Your task to perform on an android device: Open the calendar app, open the side menu, and click the "Day" option Image 0: 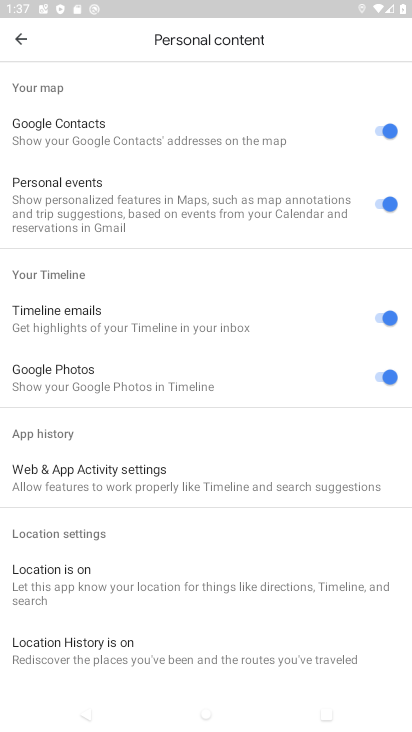
Step 0: press home button
Your task to perform on an android device: Open the calendar app, open the side menu, and click the "Day" option Image 1: 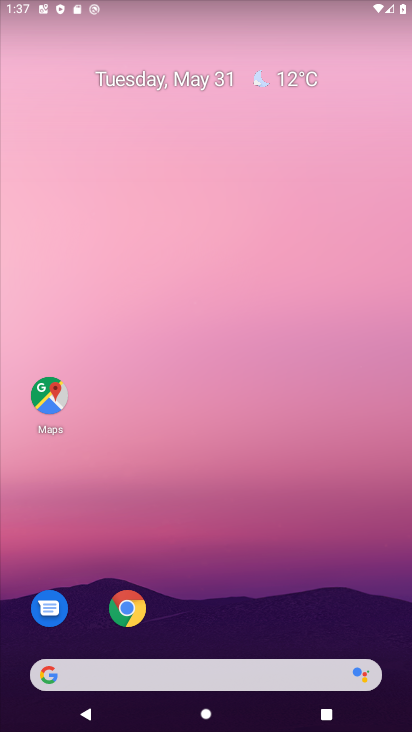
Step 1: drag from (297, 592) to (287, 176)
Your task to perform on an android device: Open the calendar app, open the side menu, and click the "Day" option Image 2: 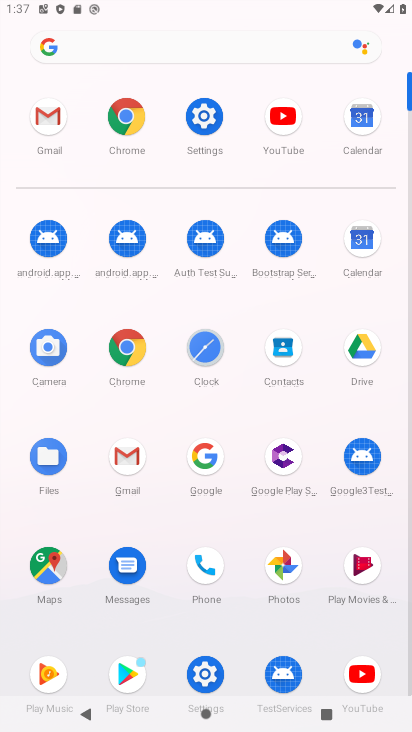
Step 2: click (351, 246)
Your task to perform on an android device: Open the calendar app, open the side menu, and click the "Day" option Image 3: 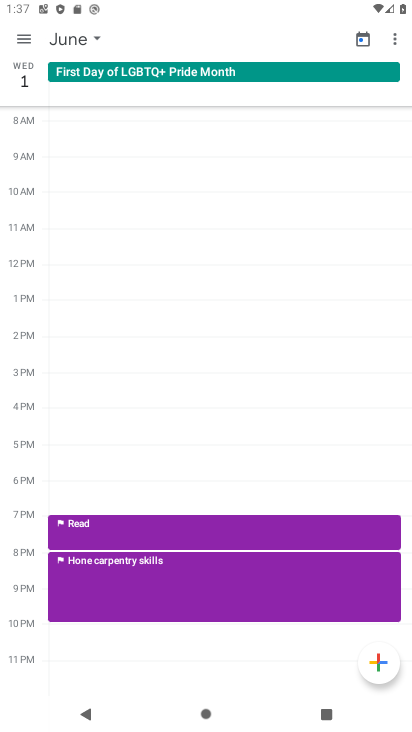
Step 3: click (17, 38)
Your task to perform on an android device: Open the calendar app, open the side menu, and click the "Day" option Image 4: 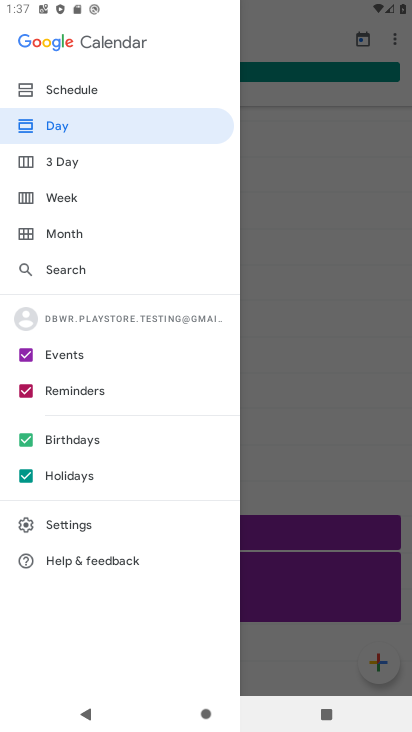
Step 4: task complete